Your task to perform on an android device: Go to calendar. Show me events next week Image 0: 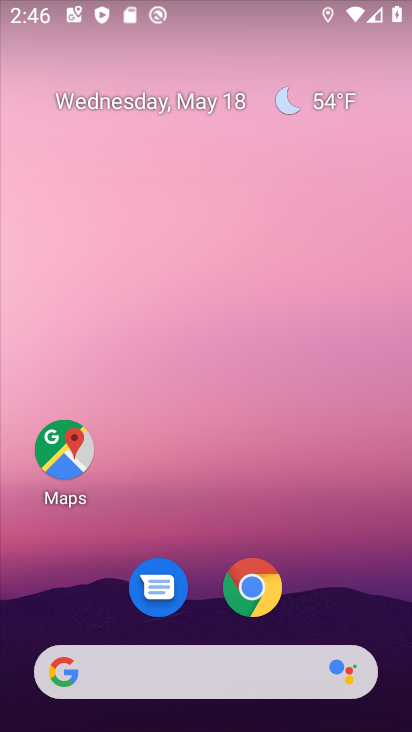
Step 0: drag from (172, 600) to (337, 13)
Your task to perform on an android device: Go to calendar. Show me events next week Image 1: 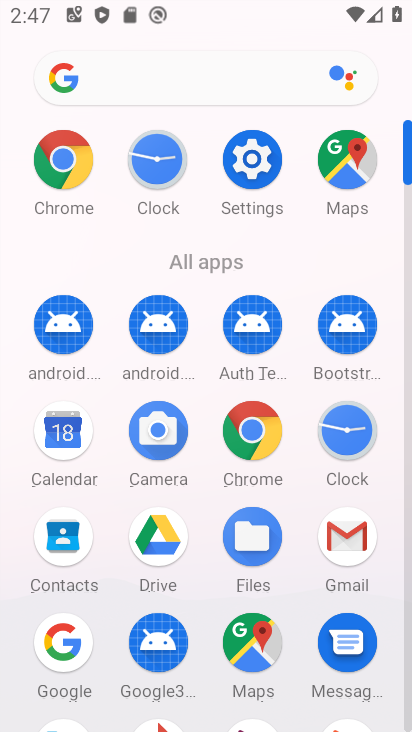
Step 1: click (72, 453)
Your task to perform on an android device: Go to calendar. Show me events next week Image 2: 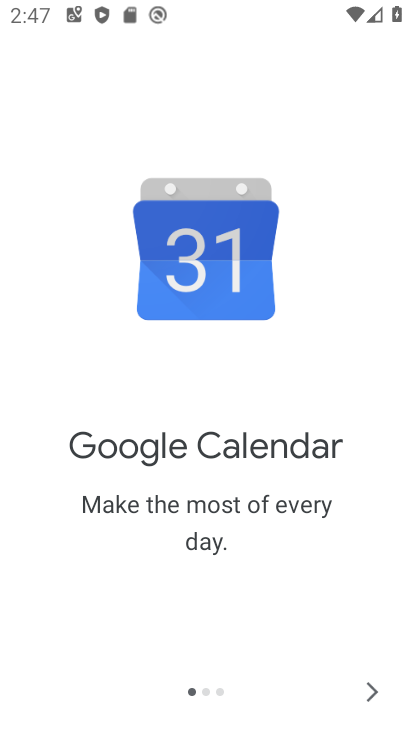
Step 2: click (373, 697)
Your task to perform on an android device: Go to calendar. Show me events next week Image 3: 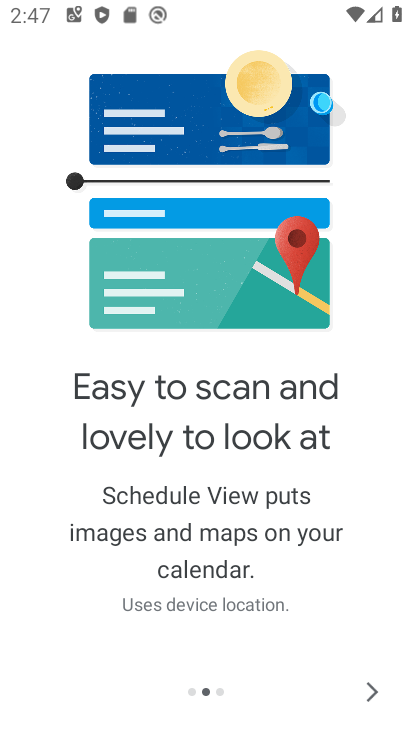
Step 3: click (372, 696)
Your task to perform on an android device: Go to calendar. Show me events next week Image 4: 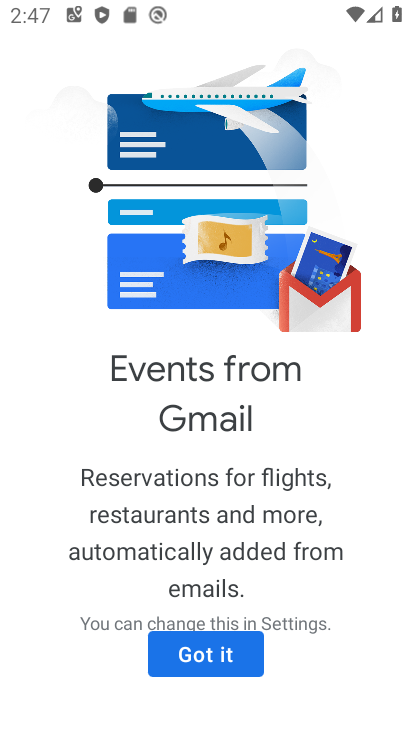
Step 4: click (202, 657)
Your task to perform on an android device: Go to calendar. Show me events next week Image 5: 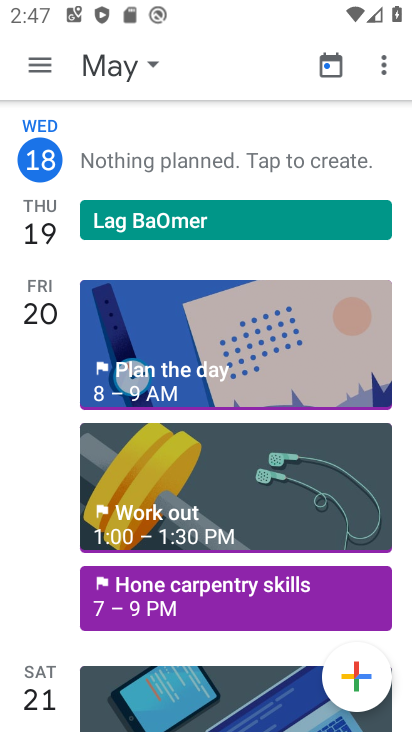
Step 5: click (129, 58)
Your task to perform on an android device: Go to calendar. Show me events next week Image 6: 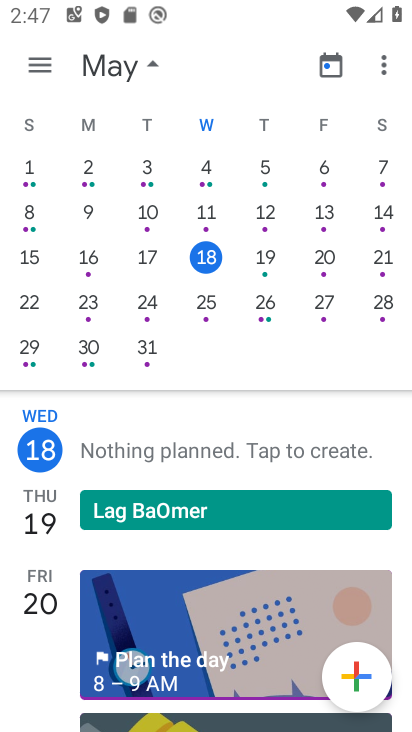
Step 6: drag from (374, 221) to (18, 281)
Your task to perform on an android device: Go to calendar. Show me events next week Image 7: 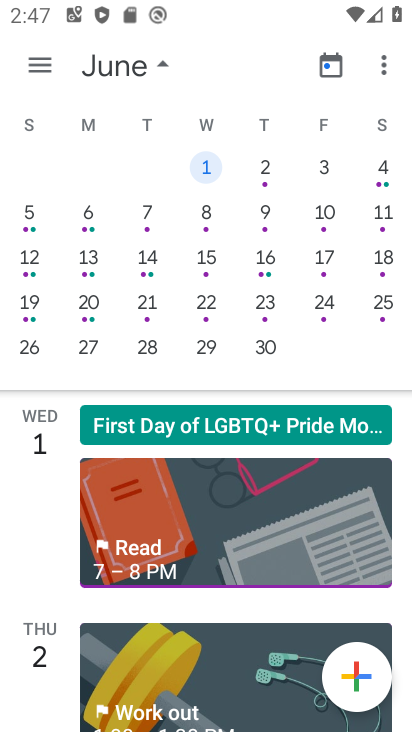
Step 7: drag from (101, 291) to (410, 293)
Your task to perform on an android device: Go to calendar. Show me events next week Image 8: 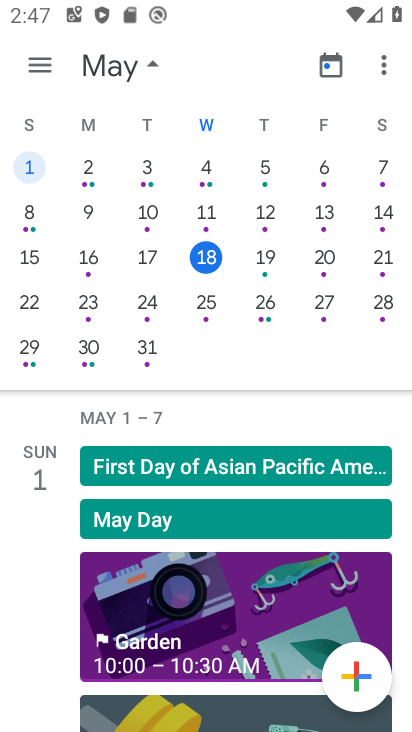
Step 8: click (213, 312)
Your task to perform on an android device: Go to calendar. Show me events next week Image 9: 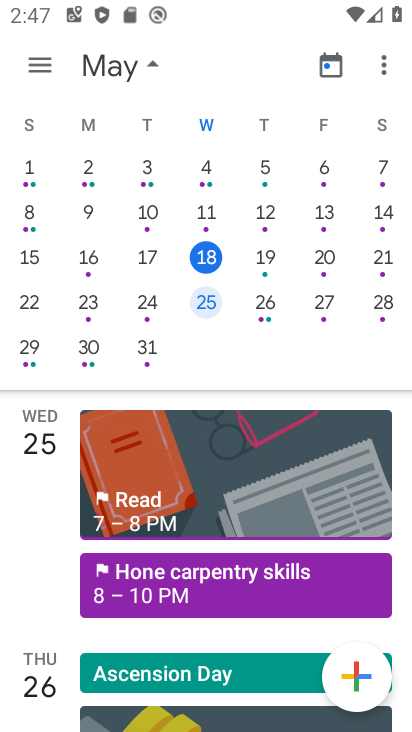
Step 9: task complete